Your task to perform on an android device: check data usage Image 0: 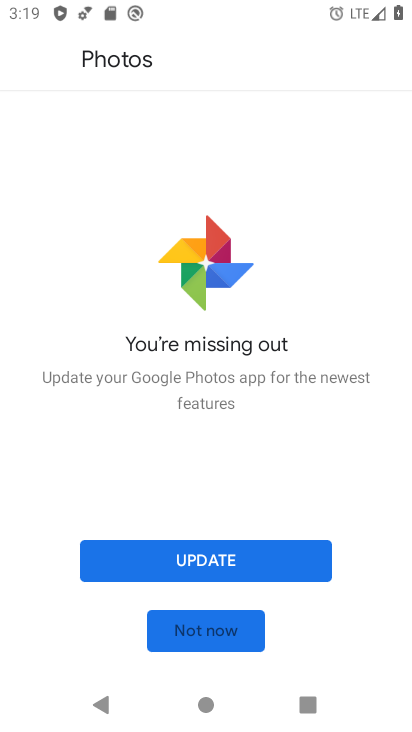
Step 0: press home button
Your task to perform on an android device: check data usage Image 1: 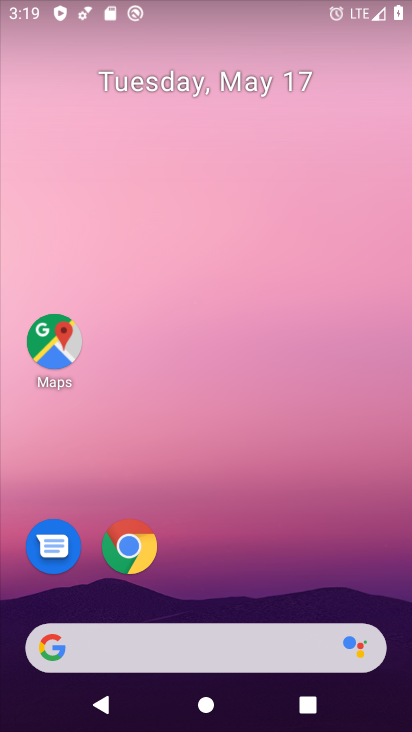
Step 1: click (237, 583)
Your task to perform on an android device: check data usage Image 2: 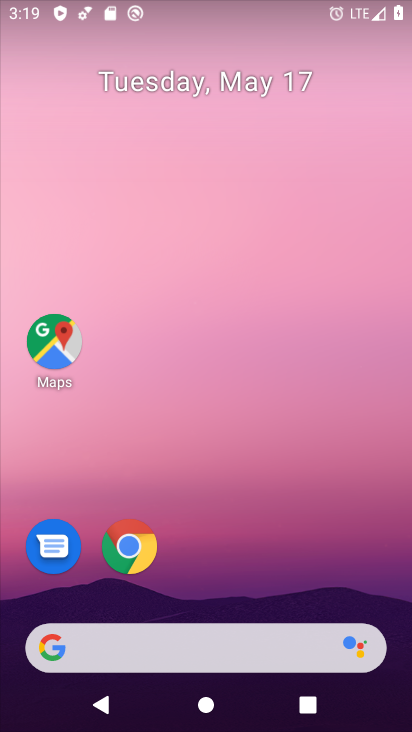
Step 2: drag from (343, 11) to (274, 731)
Your task to perform on an android device: check data usage Image 3: 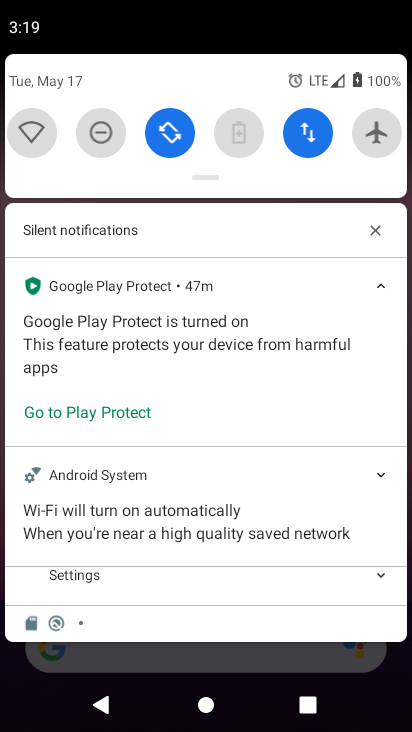
Step 3: click (310, 136)
Your task to perform on an android device: check data usage Image 4: 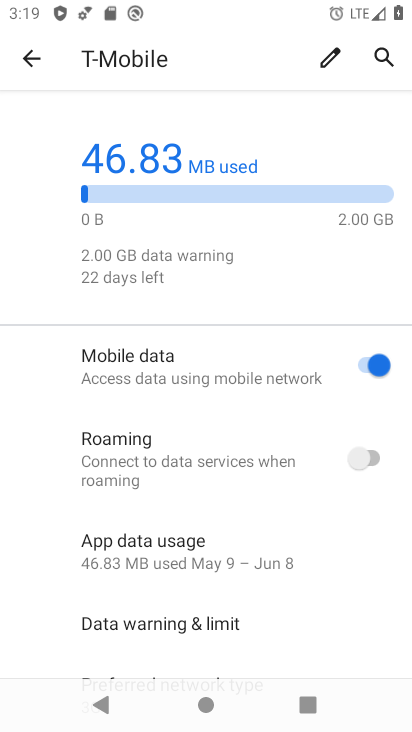
Step 4: task complete